Your task to perform on an android device: Go to Yahoo.com Image 0: 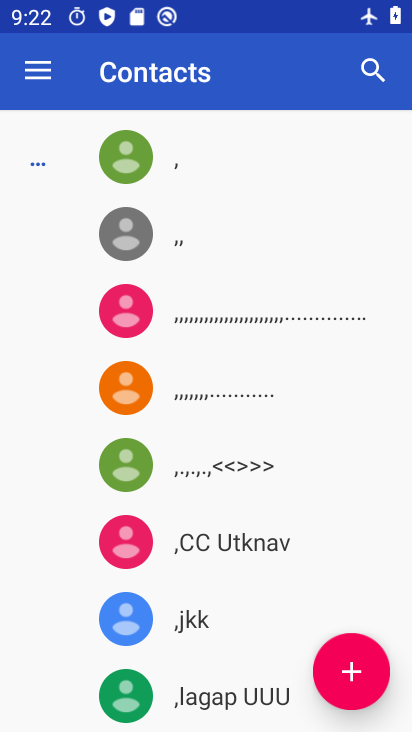
Step 0: press home button
Your task to perform on an android device: Go to Yahoo.com Image 1: 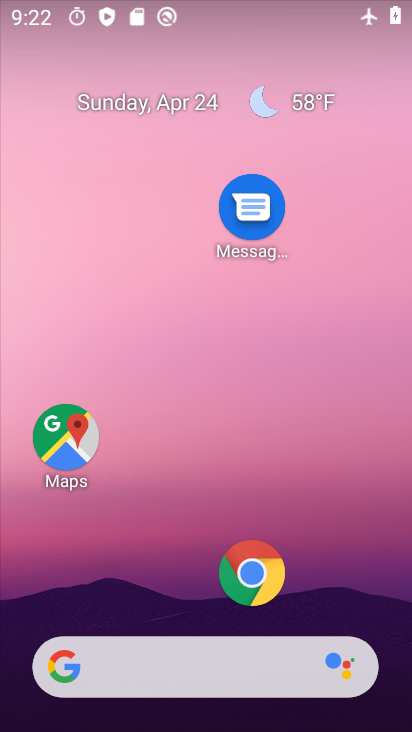
Step 1: click (262, 575)
Your task to perform on an android device: Go to Yahoo.com Image 2: 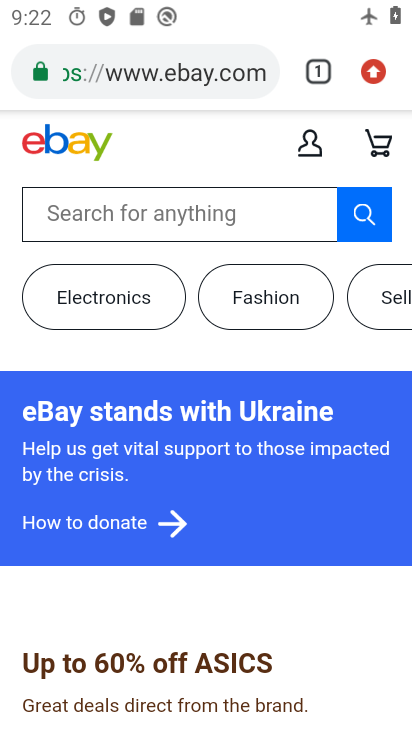
Step 2: click (194, 73)
Your task to perform on an android device: Go to Yahoo.com Image 3: 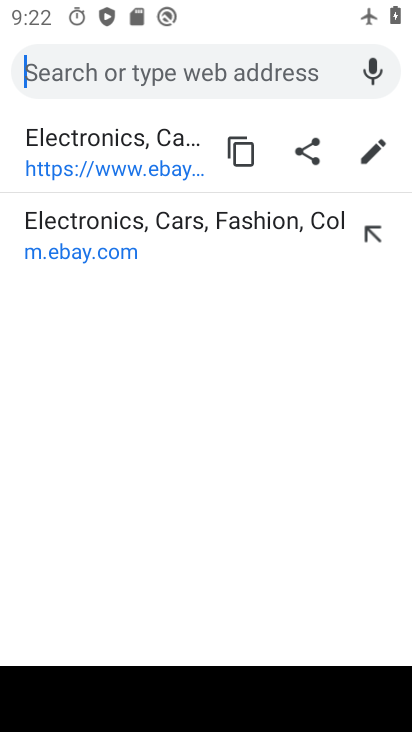
Step 3: type "yahoo.com"
Your task to perform on an android device: Go to Yahoo.com Image 4: 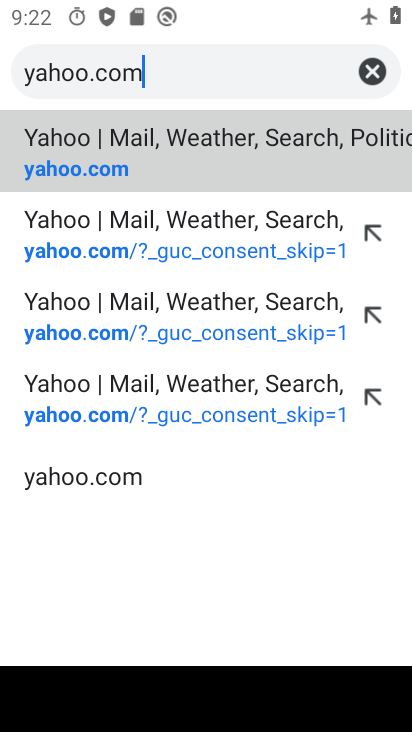
Step 4: click (158, 176)
Your task to perform on an android device: Go to Yahoo.com Image 5: 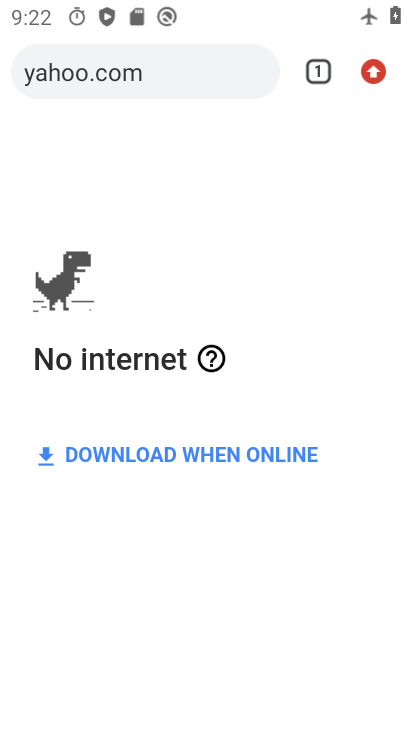
Step 5: task complete